Your task to perform on an android device: change text size in settings app Image 0: 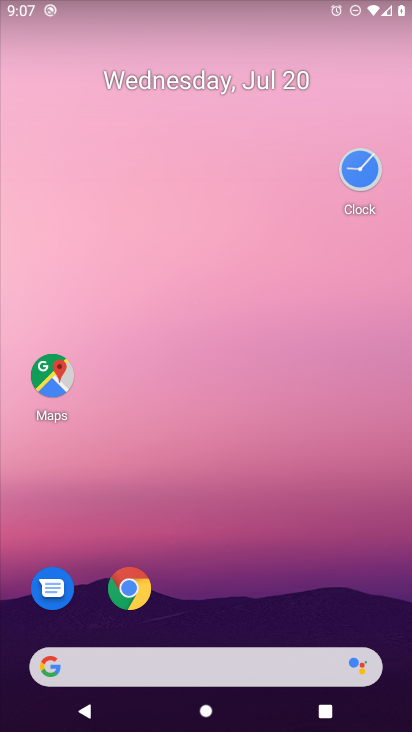
Step 0: drag from (30, 683) to (238, 68)
Your task to perform on an android device: change text size in settings app Image 1: 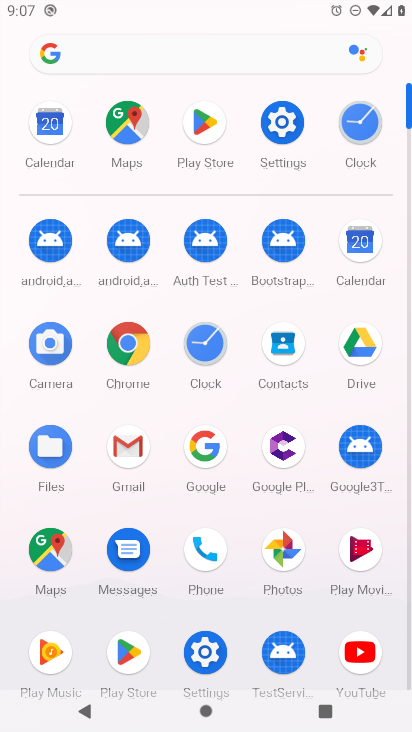
Step 1: click (209, 665)
Your task to perform on an android device: change text size in settings app Image 2: 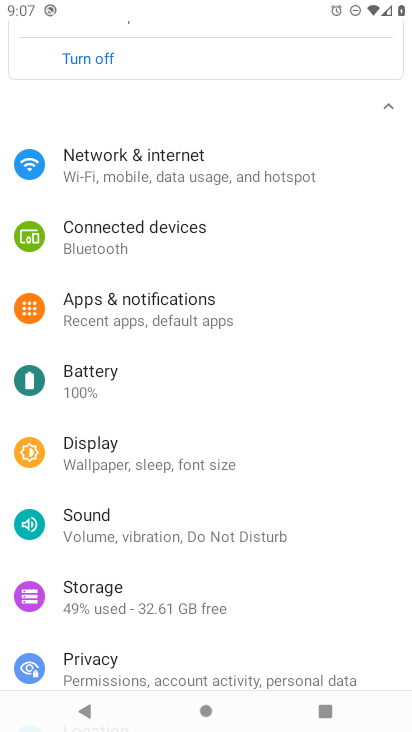
Step 2: click (213, 469)
Your task to perform on an android device: change text size in settings app Image 3: 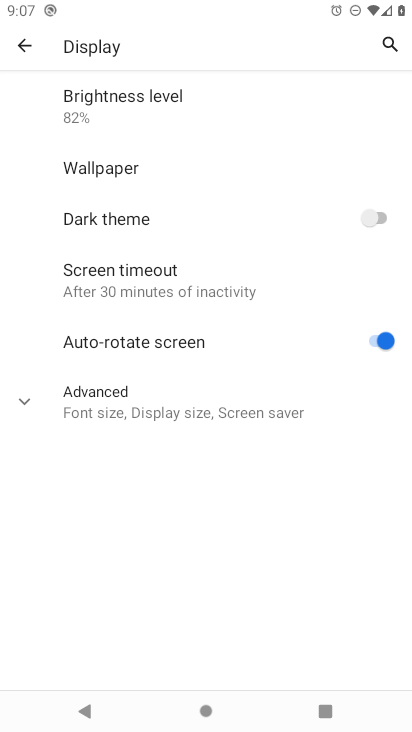
Step 3: click (178, 412)
Your task to perform on an android device: change text size in settings app Image 4: 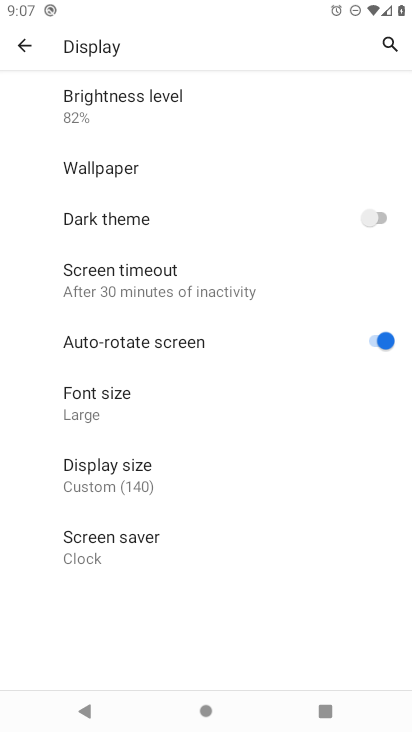
Step 4: click (112, 410)
Your task to perform on an android device: change text size in settings app Image 5: 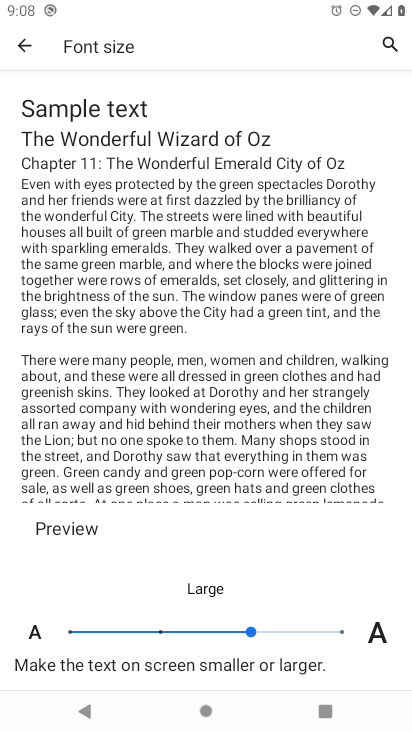
Step 5: click (244, 631)
Your task to perform on an android device: change text size in settings app Image 6: 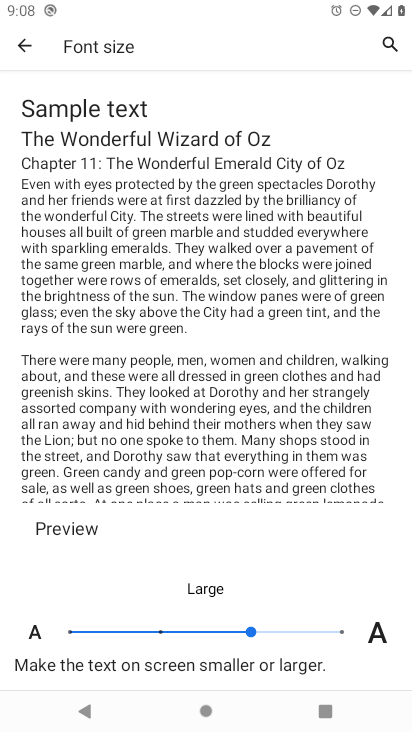
Step 6: click (242, 631)
Your task to perform on an android device: change text size in settings app Image 7: 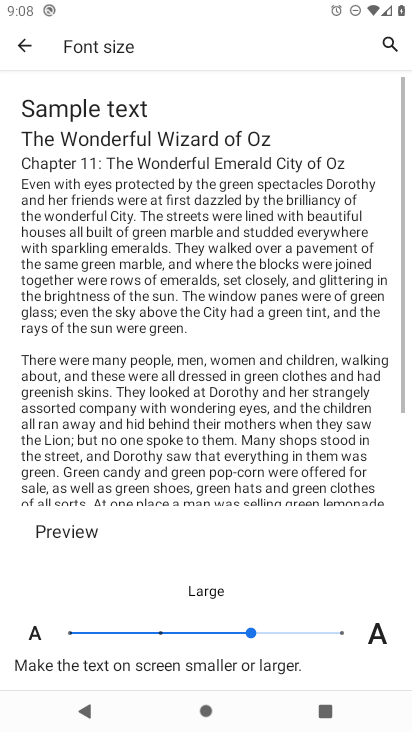
Step 7: click (240, 627)
Your task to perform on an android device: change text size in settings app Image 8: 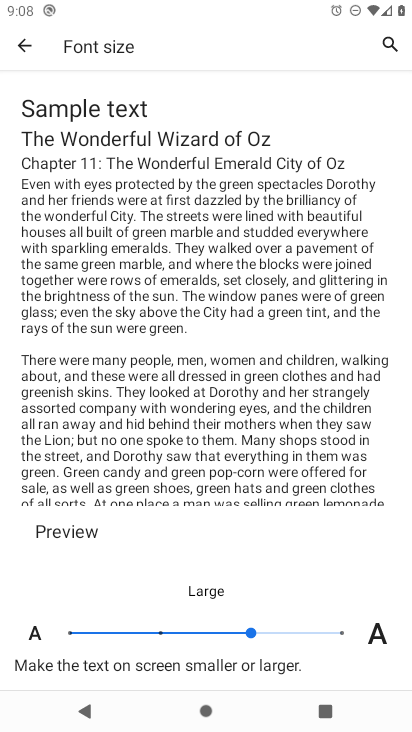
Step 8: task complete